Your task to perform on an android device: turn vacation reply on in the gmail app Image 0: 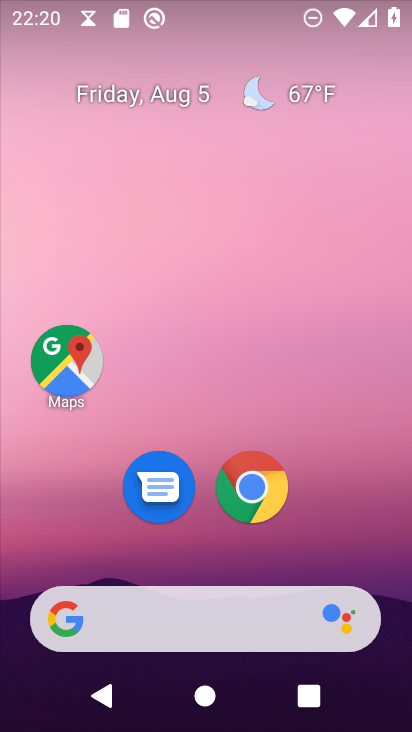
Step 0: press home button
Your task to perform on an android device: turn vacation reply on in the gmail app Image 1: 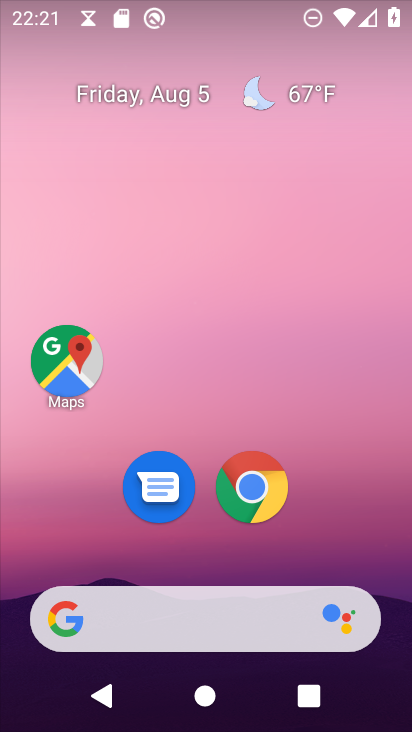
Step 1: drag from (199, 435) to (215, 144)
Your task to perform on an android device: turn vacation reply on in the gmail app Image 2: 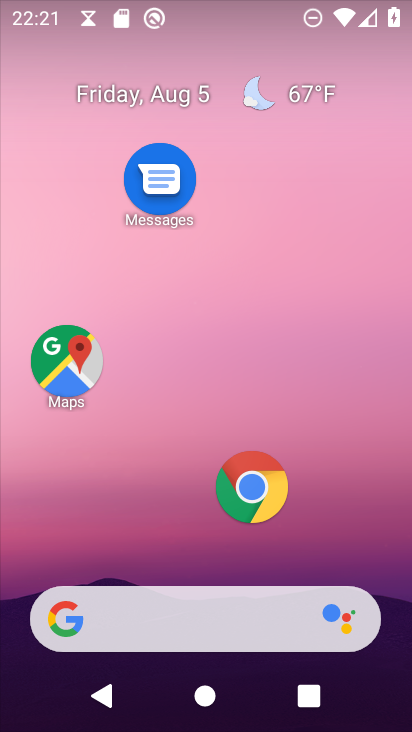
Step 2: drag from (162, 173) to (148, 497)
Your task to perform on an android device: turn vacation reply on in the gmail app Image 3: 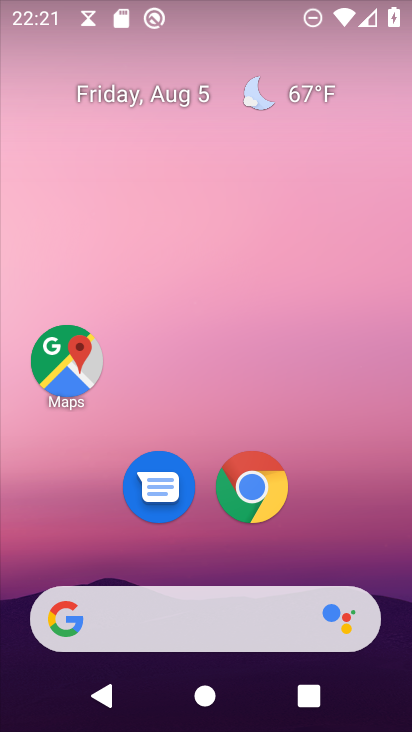
Step 3: drag from (218, 507) to (203, 140)
Your task to perform on an android device: turn vacation reply on in the gmail app Image 4: 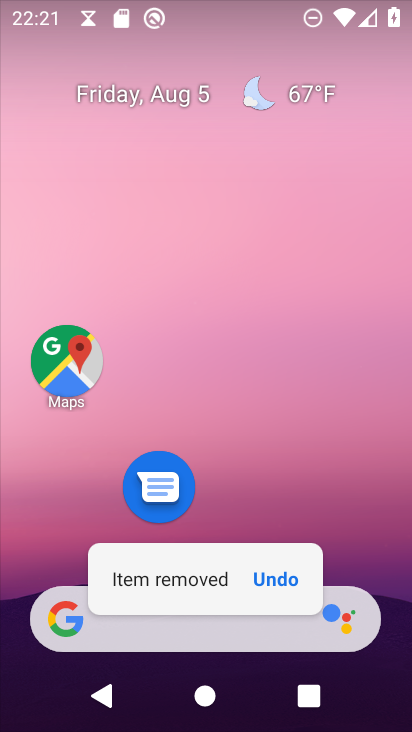
Step 4: click (334, 399)
Your task to perform on an android device: turn vacation reply on in the gmail app Image 5: 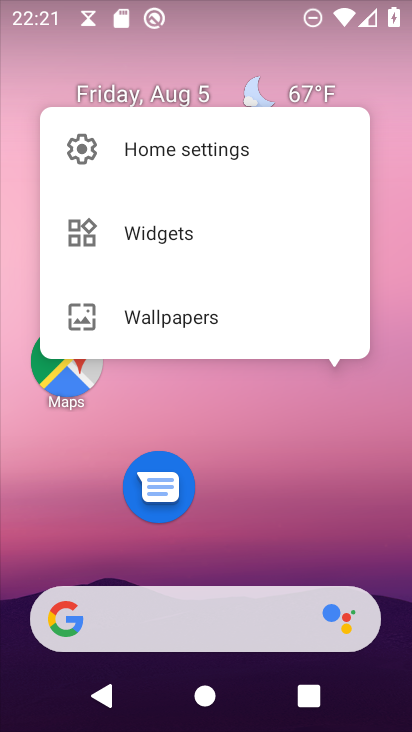
Step 5: drag from (216, 381) to (266, 24)
Your task to perform on an android device: turn vacation reply on in the gmail app Image 6: 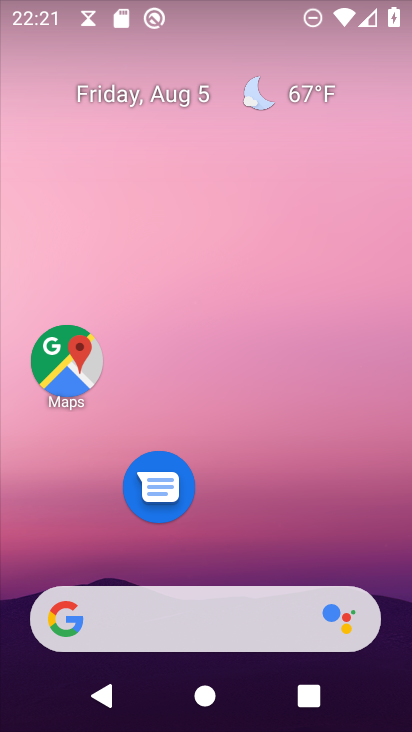
Step 6: drag from (176, 547) to (271, 13)
Your task to perform on an android device: turn vacation reply on in the gmail app Image 7: 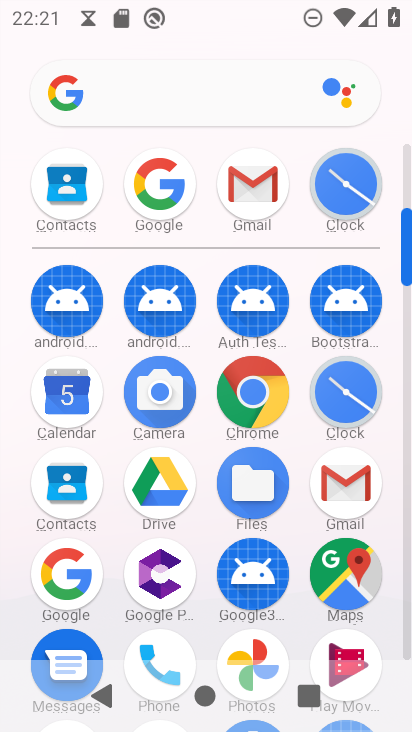
Step 7: click (259, 183)
Your task to perform on an android device: turn vacation reply on in the gmail app Image 8: 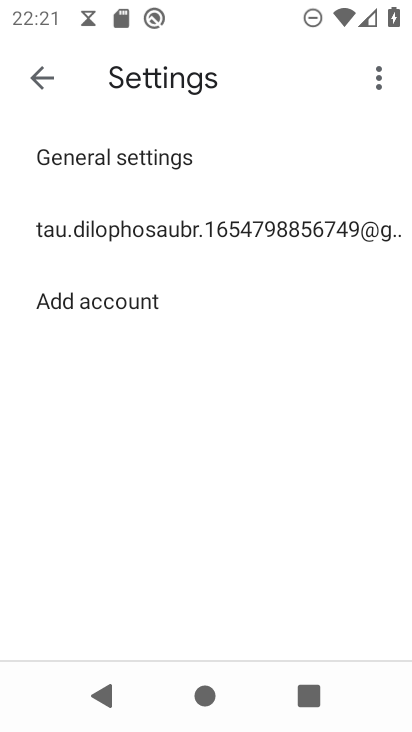
Step 8: click (238, 223)
Your task to perform on an android device: turn vacation reply on in the gmail app Image 9: 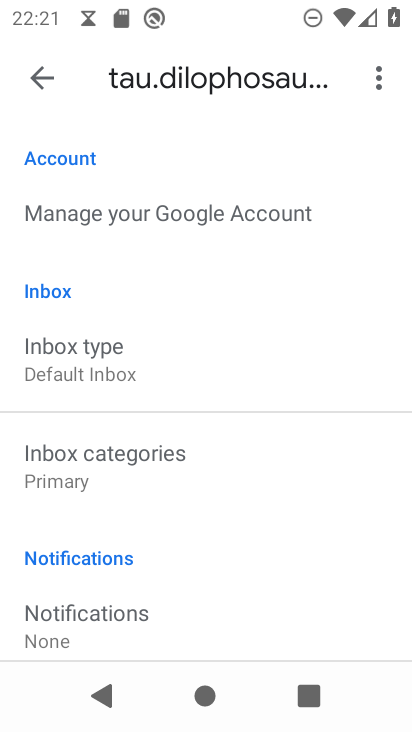
Step 9: drag from (254, 602) to (319, 44)
Your task to perform on an android device: turn vacation reply on in the gmail app Image 10: 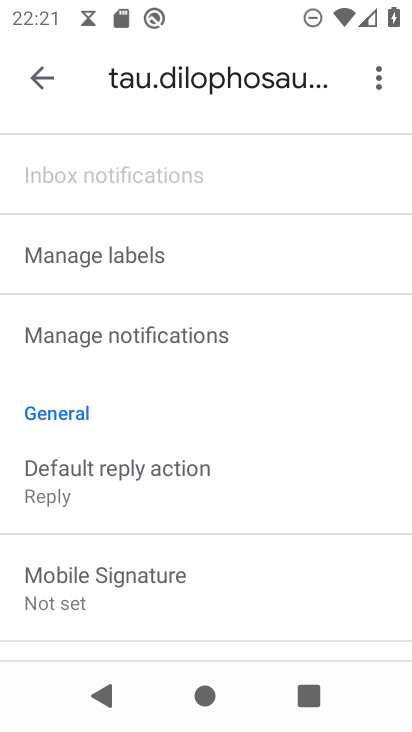
Step 10: drag from (277, 536) to (260, 91)
Your task to perform on an android device: turn vacation reply on in the gmail app Image 11: 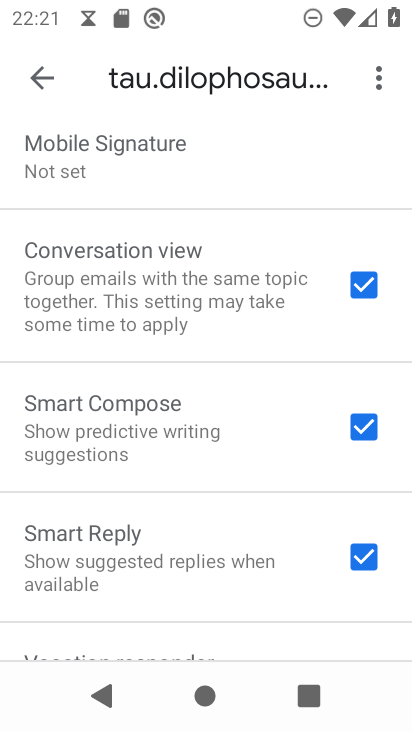
Step 11: drag from (262, 550) to (200, 148)
Your task to perform on an android device: turn vacation reply on in the gmail app Image 12: 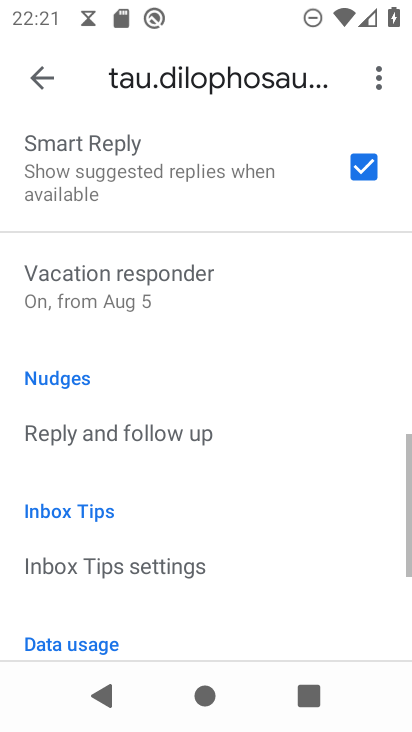
Step 12: click (110, 294)
Your task to perform on an android device: turn vacation reply on in the gmail app Image 13: 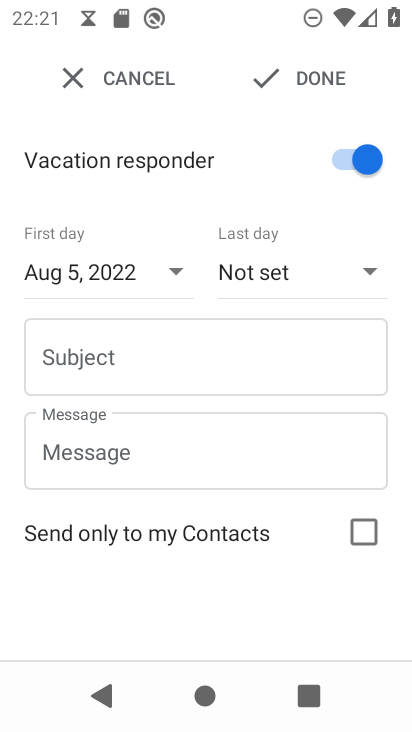
Step 13: task complete